Your task to perform on an android device: Open Reddit.com Image 0: 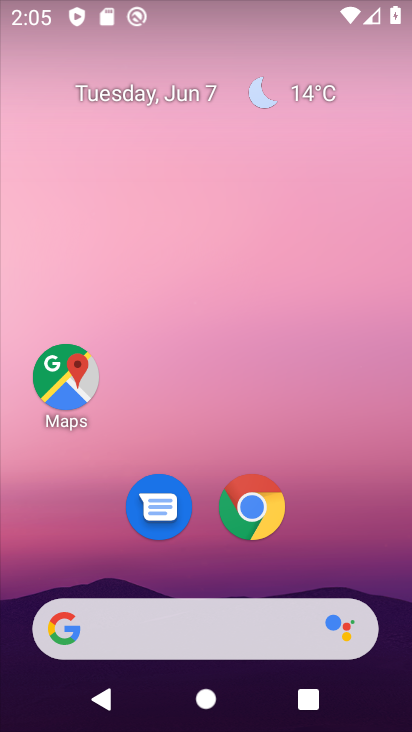
Step 0: drag from (321, 454) to (330, 126)
Your task to perform on an android device: Open Reddit.com Image 1: 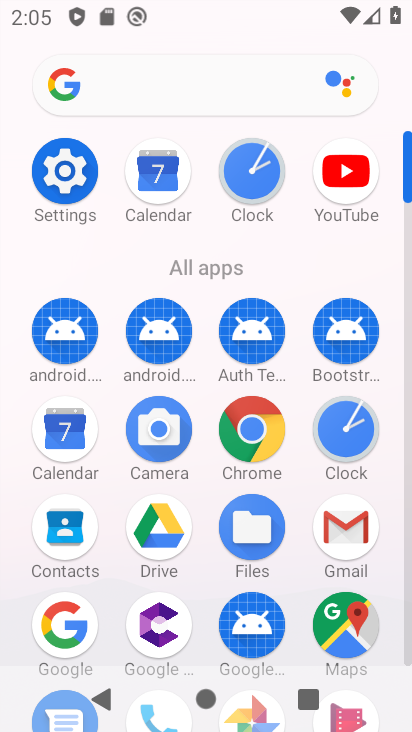
Step 1: click (247, 430)
Your task to perform on an android device: Open Reddit.com Image 2: 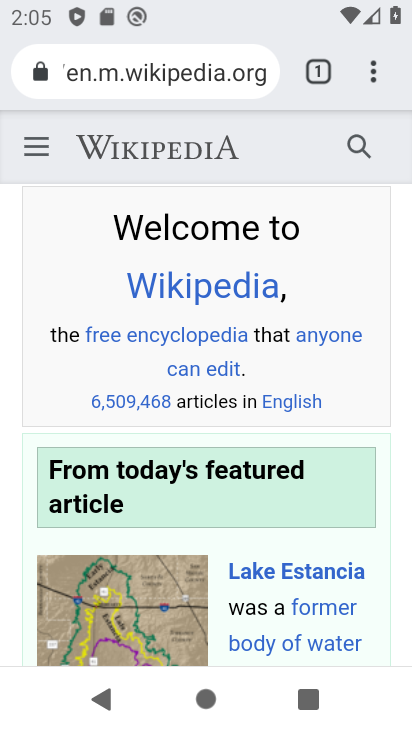
Step 2: click (154, 66)
Your task to perform on an android device: Open Reddit.com Image 3: 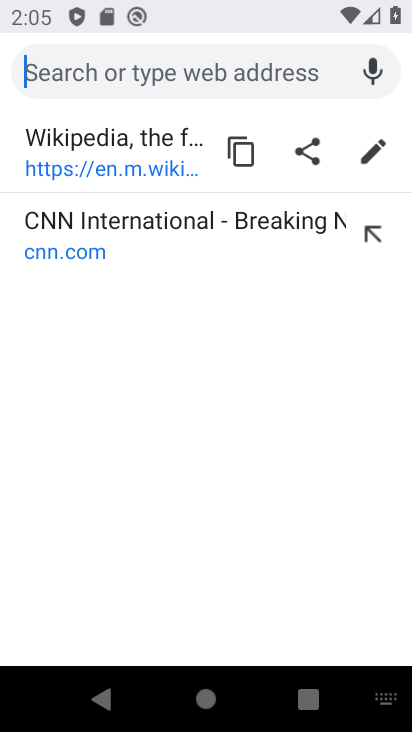
Step 3: type "reddit.com"
Your task to perform on an android device: Open Reddit.com Image 4: 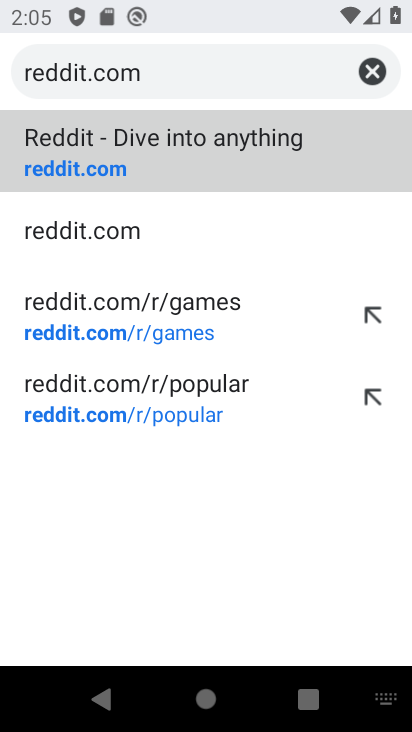
Step 4: click (98, 163)
Your task to perform on an android device: Open Reddit.com Image 5: 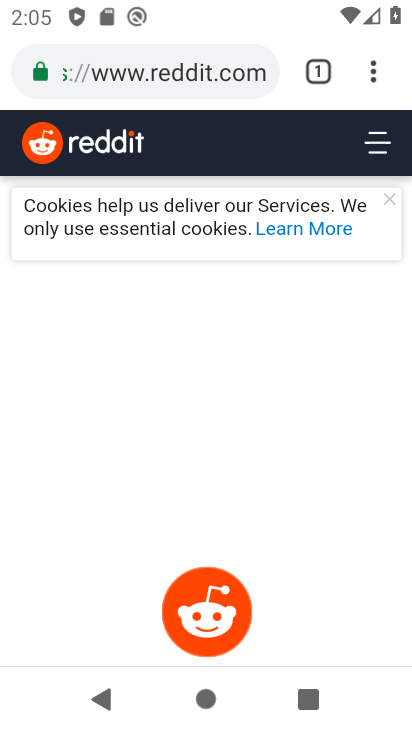
Step 5: task complete